Your task to perform on an android device: open app "Facebook Lite" (install if not already installed) and enter user name: "suppers@inbox.com" and password: "downplayed" Image 0: 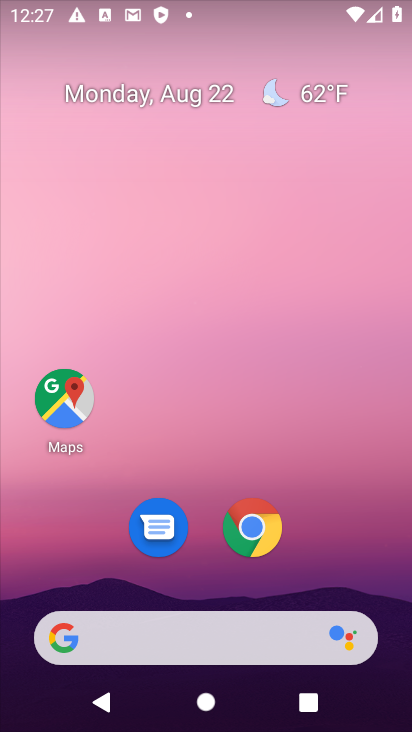
Step 0: drag from (264, 557) to (219, 71)
Your task to perform on an android device: open app "Facebook Lite" (install if not already installed) and enter user name: "suppers@inbox.com" and password: "downplayed" Image 1: 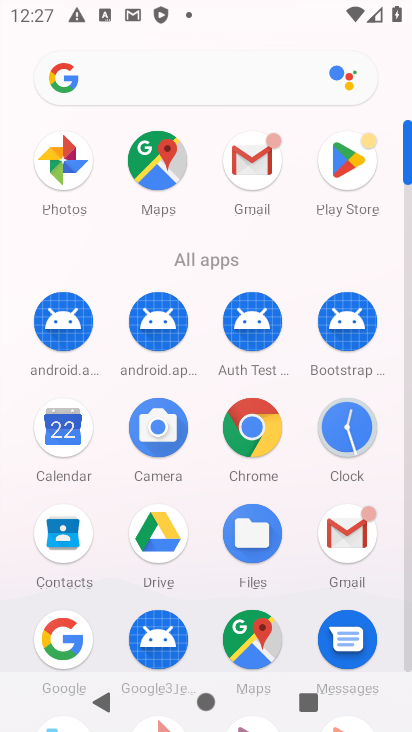
Step 1: click (345, 163)
Your task to perform on an android device: open app "Facebook Lite" (install if not already installed) and enter user name: "suppers@inbox.com" and password: "downplayed" Image 2: 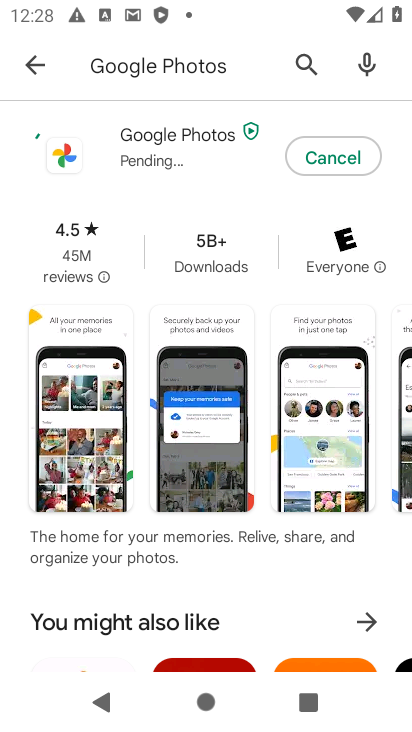
Step 2: press back button
Your task to perform on an android device: open app "Facebook Lite" (install if not already installed) and enter user name: "suppers@inbox.com" and password: "downplayed" Image 3: 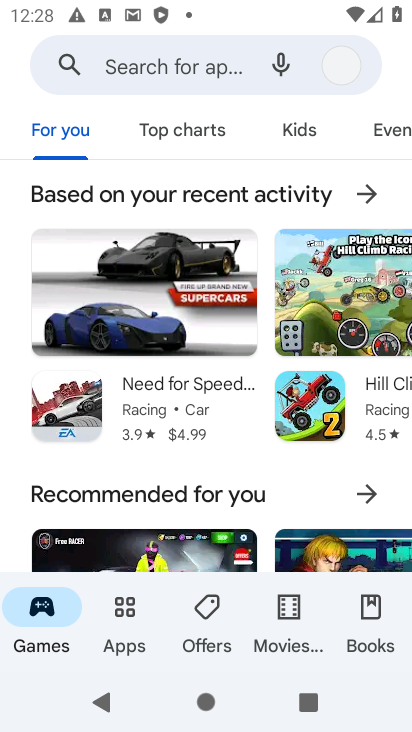
Step 3: click (110, 60)
Your task to perform on an android device: open app "Facebook Lite" (install if not already installed) and enter user name: "suppers@inbox.com" and password: "downplayed" Image 4: 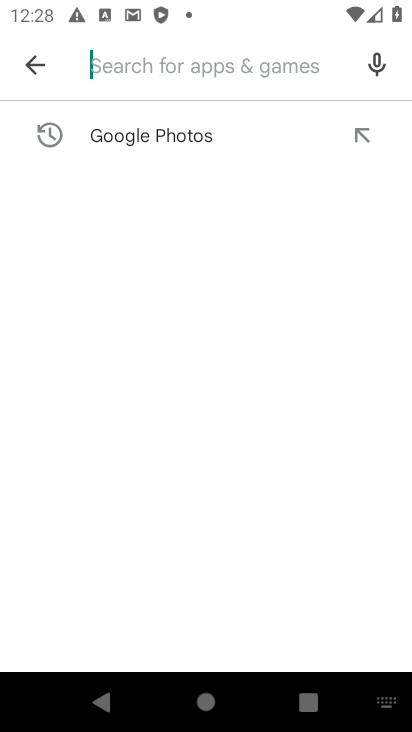
Step 4: type "Facebook Lite"
Your task to perform on an android device: open app "Facebook Lite" (install if not already installed) and enter user name: "suppers@inbox.com" and password: "downplayed" Image 5: 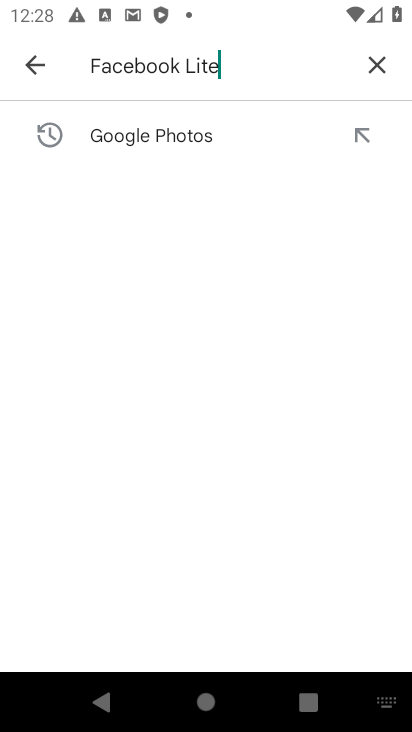
Step 5: press enter
Your task to perform on an android device: open app "Facebook Lite" (install if not already installed) and enter user name: "suppers@inbox.com" and password: "downplayed" Image 6: 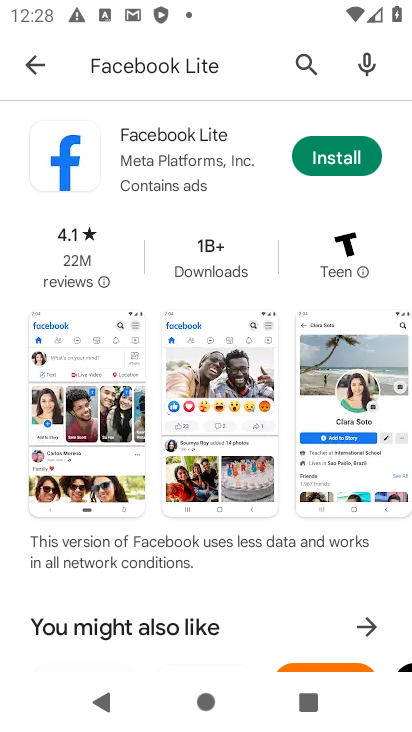
Step 6: click (340, 157)
Your task to perform on an android device: open app "Facebook Lite" (install if not already installed) and enter user name: "suppers@inbox.com" and password: "downplayed" Image 7: 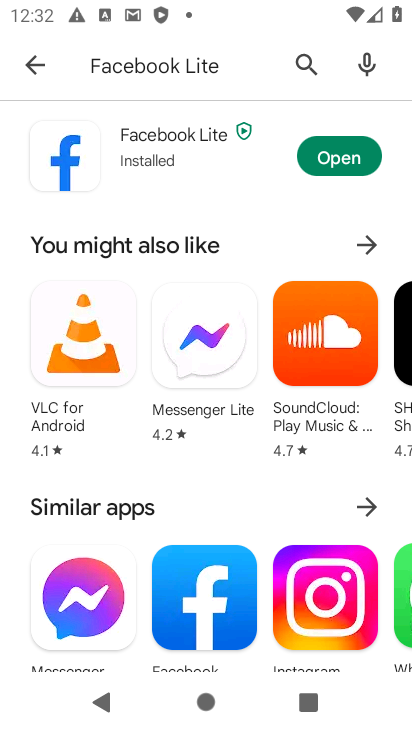
Step 7: click (353, 142)
Your task to perform on an android device: open app "Facebook Lite" (install if not already installed) and enter user name: "suppers@inbox.com" and password: "downplayed" Image 8: 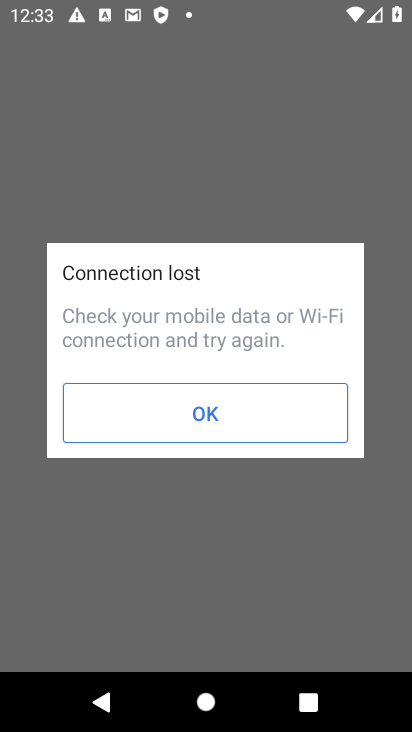
Step 8: click (222, 411)
Your task to perform on an android device: open app "Facebook Lite" (install if not already installed) and enter user name: "suppers@inbox.com" and password: "downplayed" Image 9: 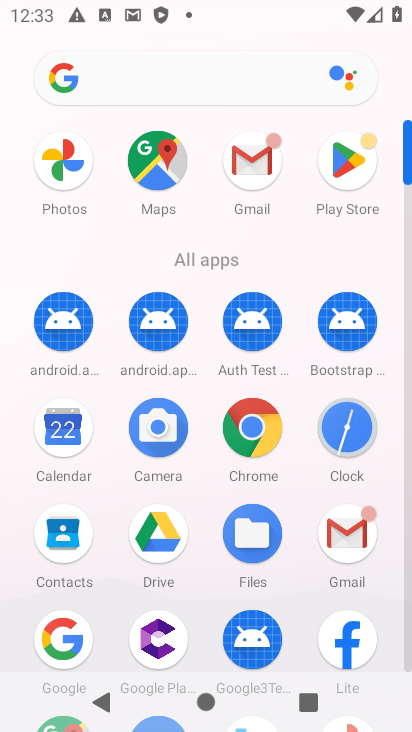
Step 9: click (331, 640)
Your task to perform on an android device: open app "Facebook Lite" (install if not already installed) and enter user name: "suppers@inbox.com" and password: "downplayed" Image 10: 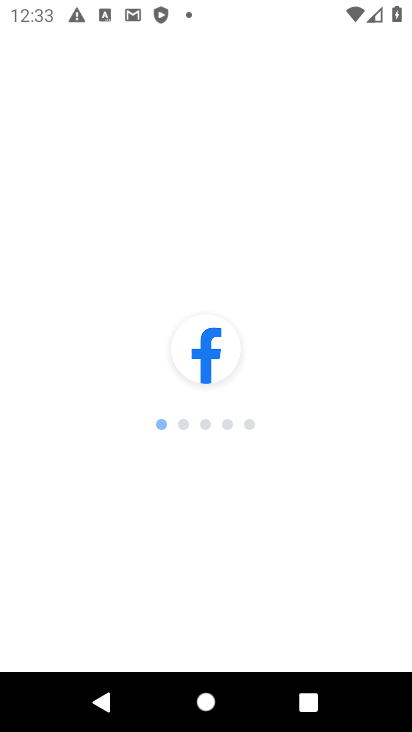
Step 10: task complete